Your task to perform on an android device: Check the weather Image 0: 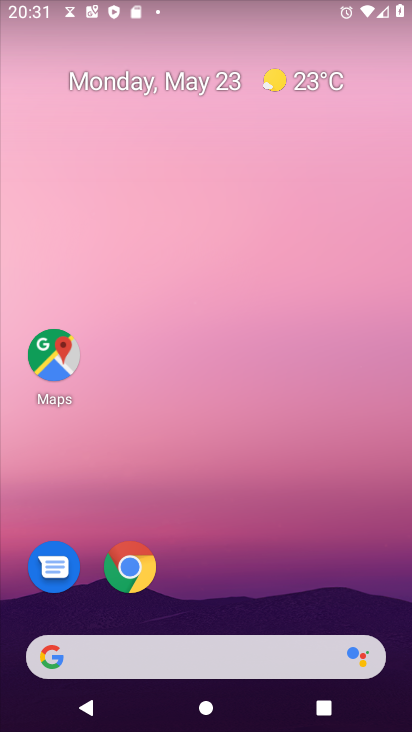
Step 0: click (123, 569)
Your task to perform on an android device: Check the weather Image 1: 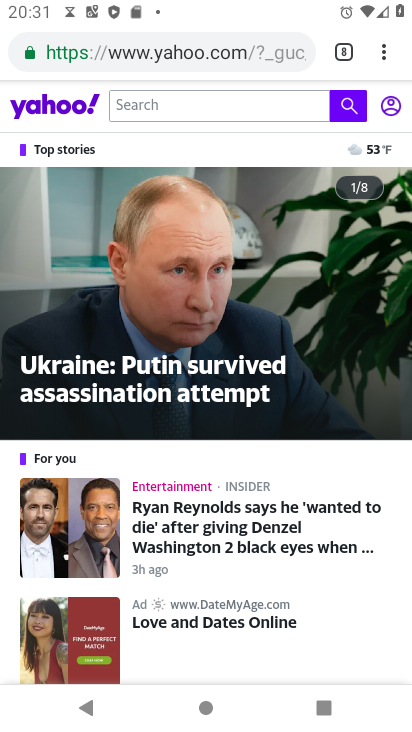
Step 1: click (380, 60)
Your task to perform on an android device: Check the weather Image 2: 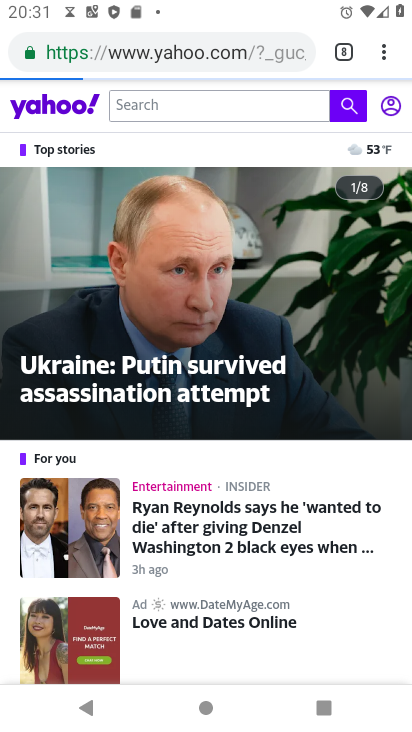
Step 2: click (390, 41)
Your task to perform on an android device: Check the weather Image 3: 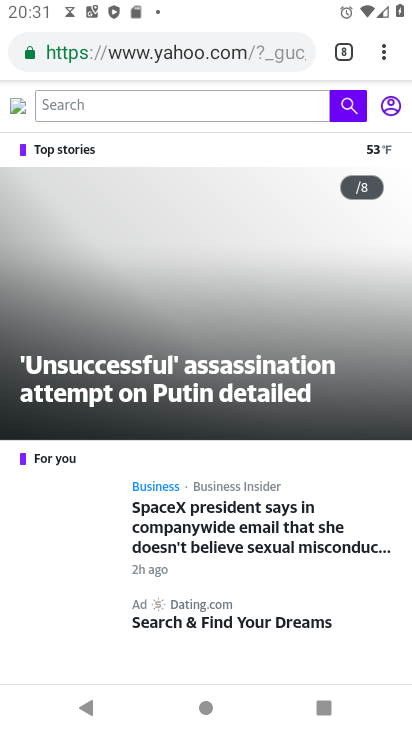
Step 3: click (370, 48)
Your task to perform on an android device: Check the weather Image 4: 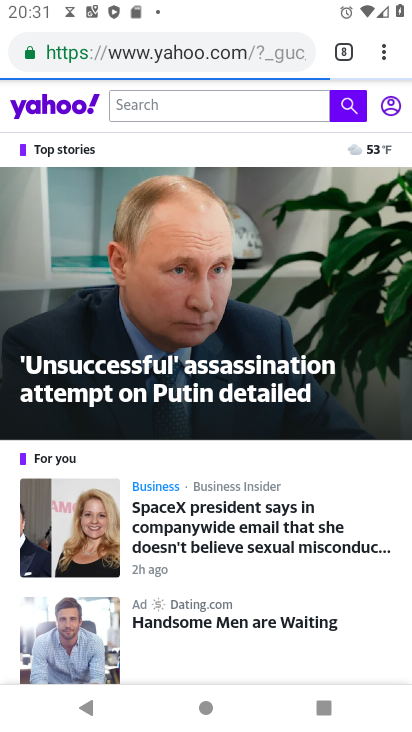
Step 4: click (377, 43)
Your task to perform on an android device: Check the weather Image 5: 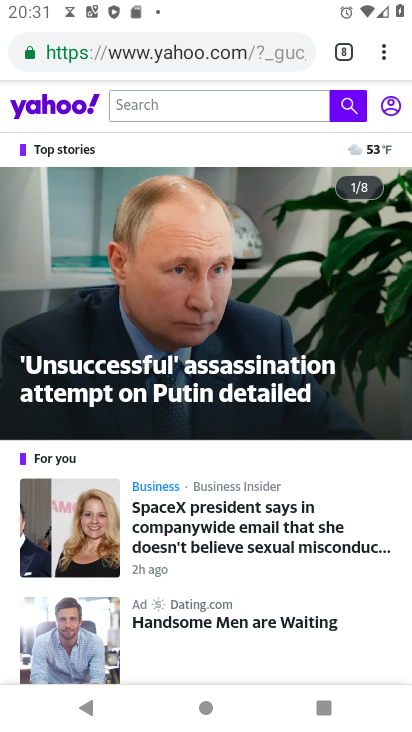
Step 5: click (383, 55)
Your task to perform on an android device: Check the weather Image 6: 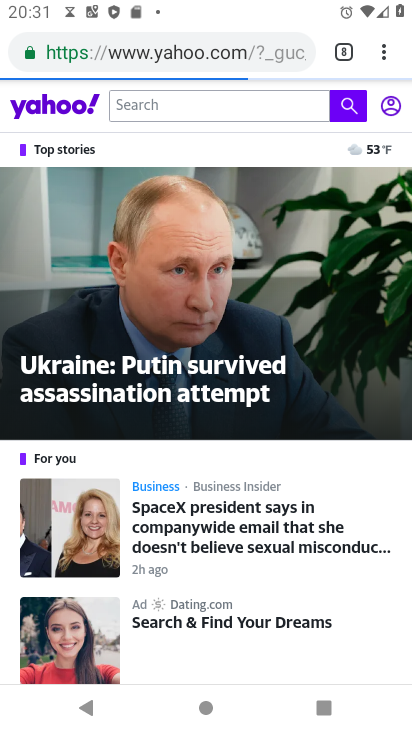
Step 6: click (370, 50)
Your task to perform on an android device: Check the weather Image 7: 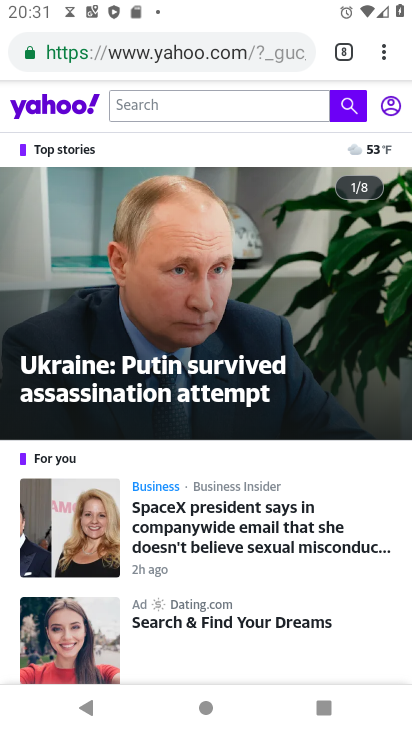
Step 7: click (378, 47)
Your task to perform on an android device: Check the weather Image 8: 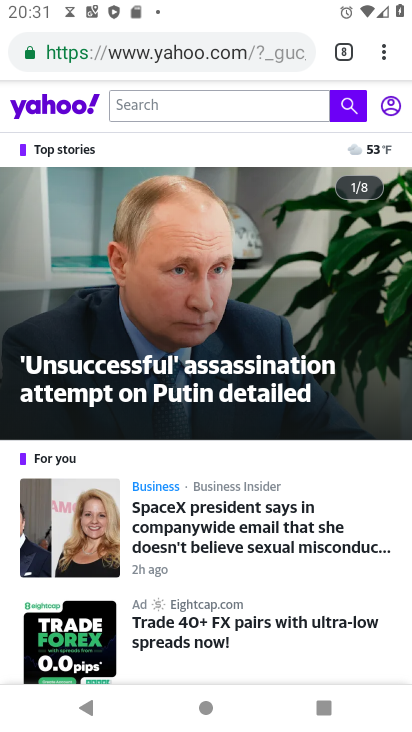
Step 8: click (378, 51)
Your task to perform on an android device: Check the weather Image 9: 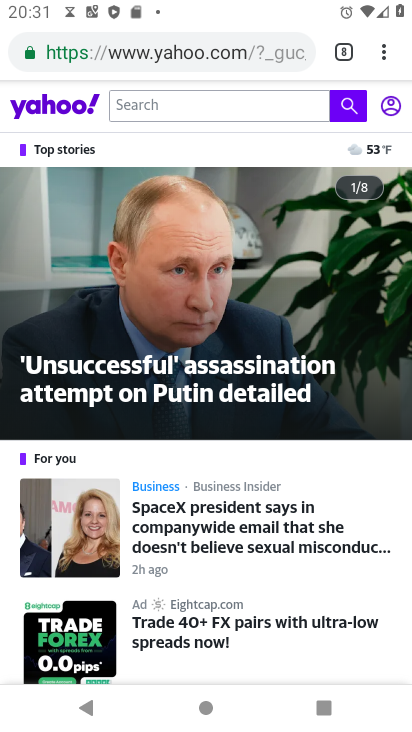
Step 9: click (374, 49)
Your task to perform on an android device: Check the weather Image 10: 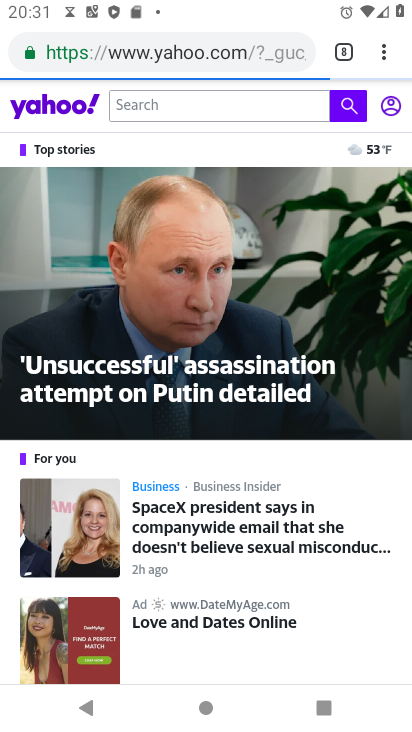
Step 10: click (377, 50)
Your task to perform on an android device: Check the weather Image 11: 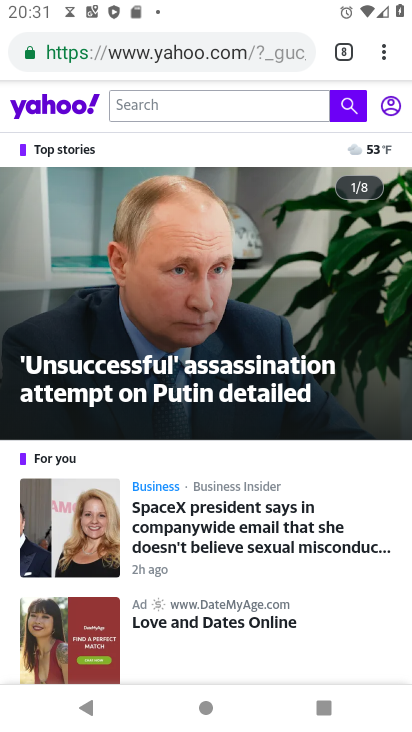
Step 11: click (383, 45)
Your task to perform on an android device: Check the weather Image 12: 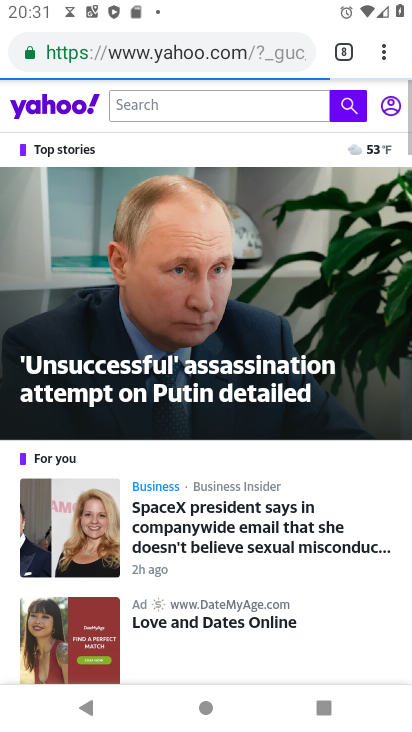
Step 12: click (382, 46)
Your task to perform on an android device: Check the weather Image 13: 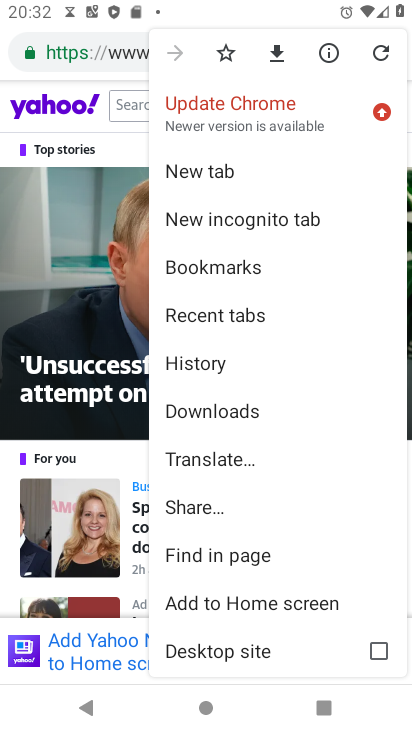
Step 13: click (233, 165)
Your task to perform on an android device: Check the weather Image 14: 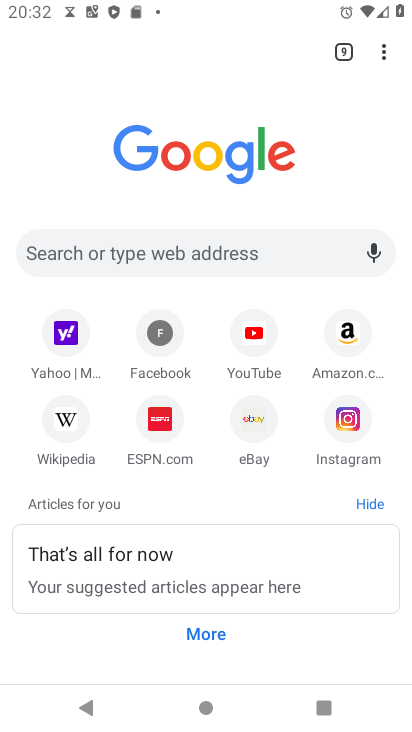
Step 14: click (242, 246)
Your task to perform on an android device: Check the weather Image 15: 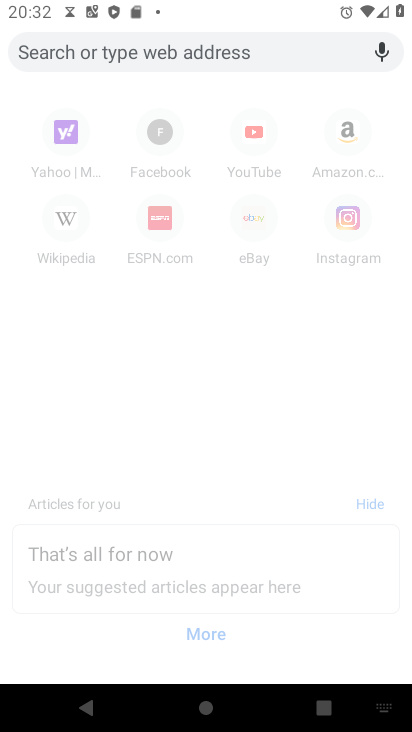
Step 15: type "Check the weather"
Your task to perform on an android device: Check the weather Image 16: 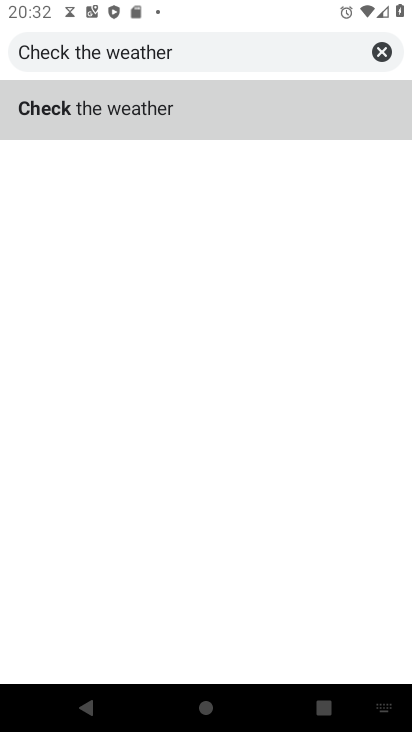
Step 16: click (210, 92)
Your task to perform on an android device: Check the weather Image 17: 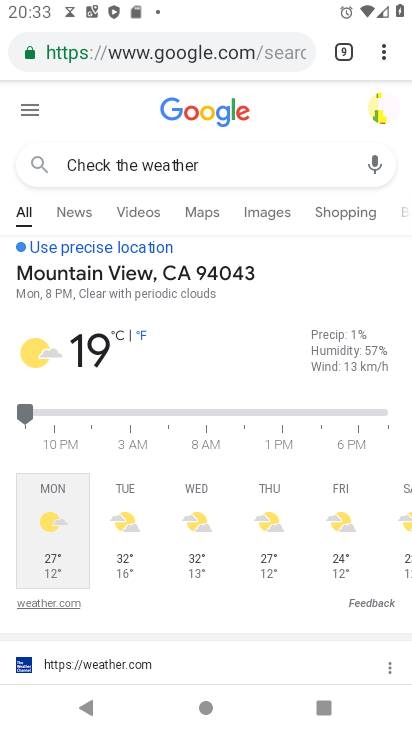
Step 17: task complete